Your task to perform on an android device: set default search engine in the chrome app Image 0: 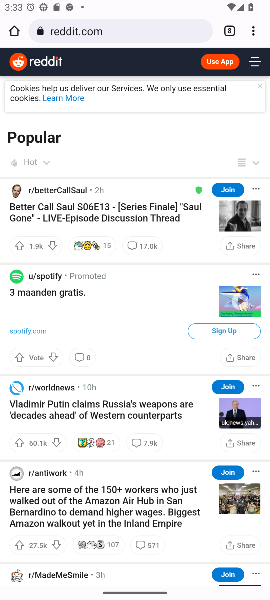
Step 0: press home button
Your task to perform on an android device: set default search engine in the chrome app Image 1: 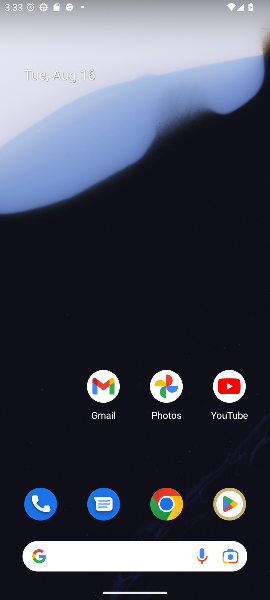
Step 1: click (164, 506)
Your task to perform on an android device: set default search engine in the chrome app Image 2: 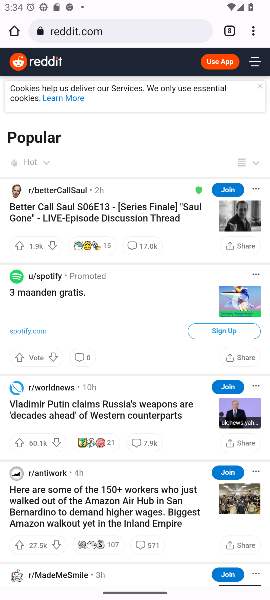
Step 2: click (253, 28)
Your task to perform on an android device: set default search engine in the chrome app Image 3: 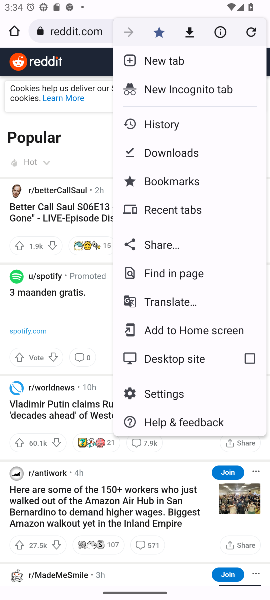
Step 3: click (174, 394)
Your task to perform on an android device: set default search engine in the chrome app Image 4: 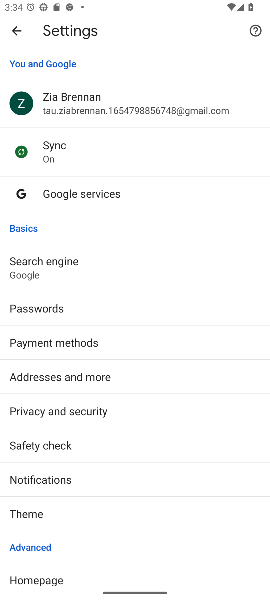
Step 4: click (45, 262)
Your task to perform on an android device: set default search engine in the chrome app Image 5: 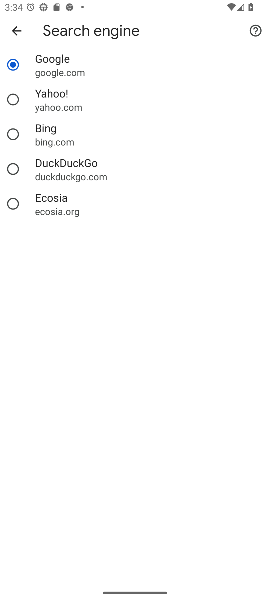
Step 5: task complete